Your task to perform on an android device: add a label to a message in the gmail app Image 0: 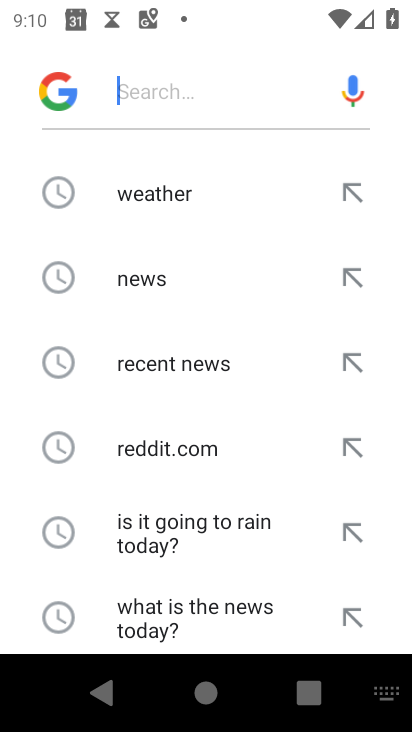
Step 0: press home button
Your task to perform on an android device: add a label to a message in the gmail app Image 1: 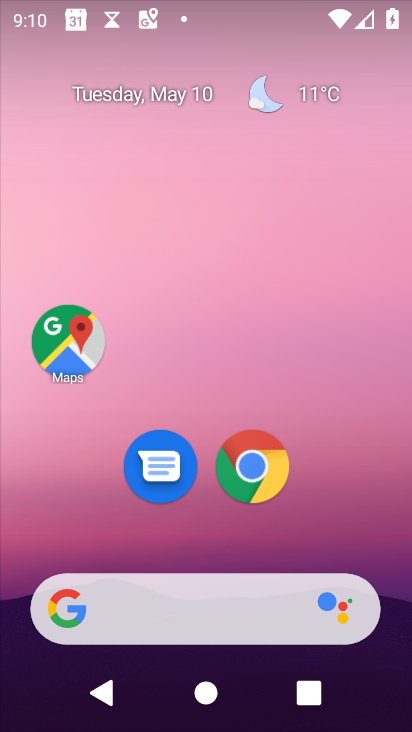
Step 1: drag from (317, 515) to (326, 46)
Your task to perform on an android device: add a label to a message in the gmail app Image 2: 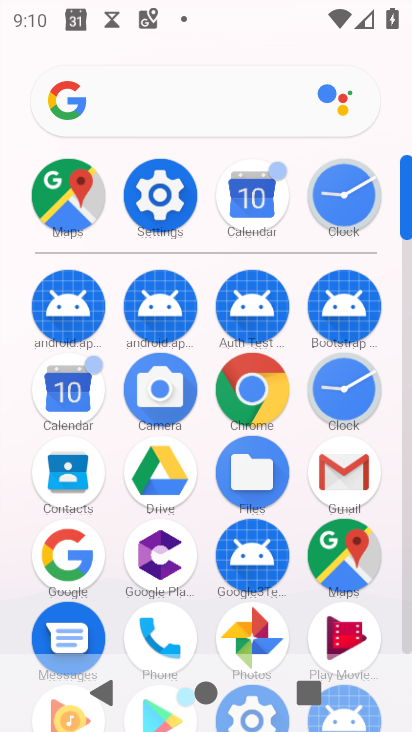
Step 2: click (361, 471)
Your task to perform on an android device: add a label to a message in the gmail app Image 3: 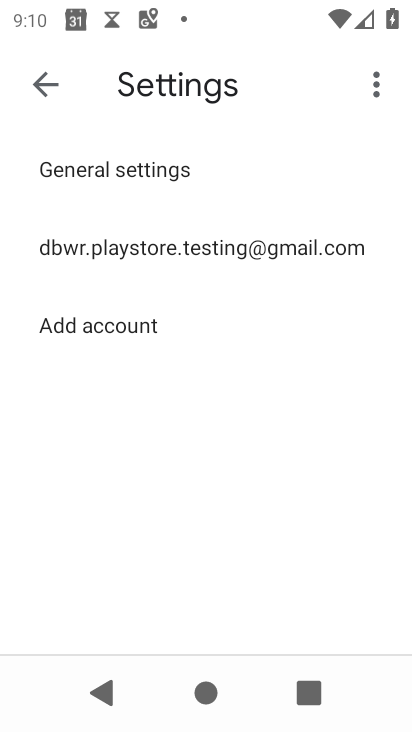
Step 3: click (51, 102)
Your task to perform on an android device: add a label to a message in the gmail app Image 4: 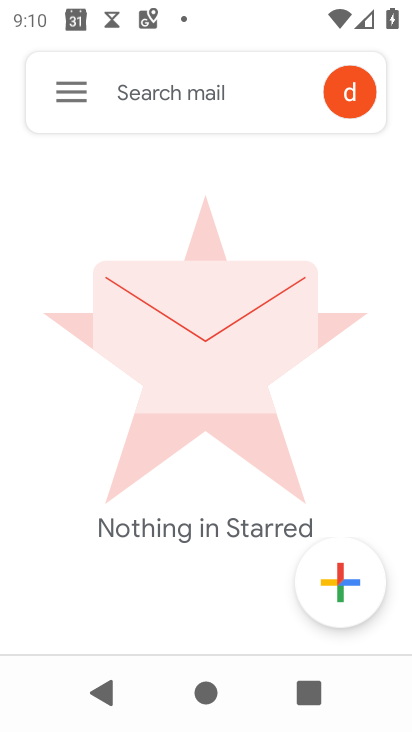
Step 4: click (65, 100)
Your task to perform on an android device: add a label to a message in the gmail app Image 5: 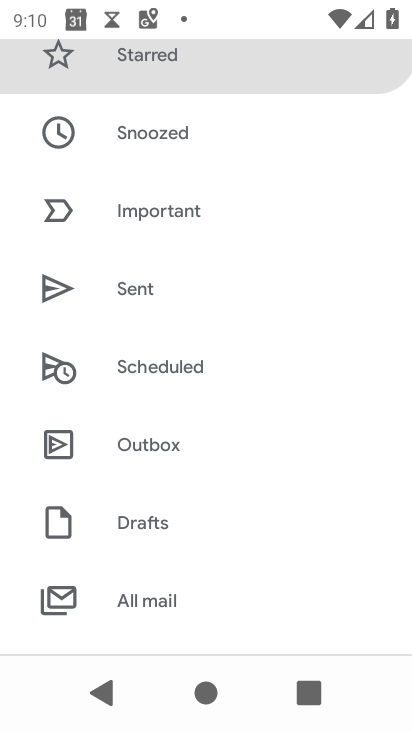
Step 5: drag from (128, 244) to (167, 143)
Your task to perform on an android device: add a label to a message in the gmail app Image 6: 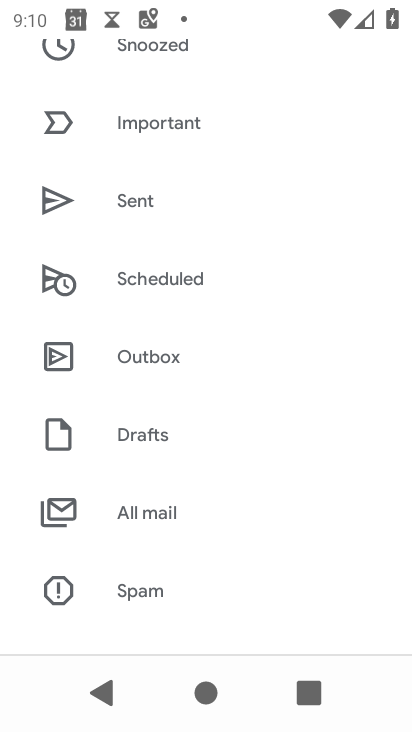
Step 6: click (193, 510)
Your task to perform on an android device: add a label to a message in the gmail app Image 7: 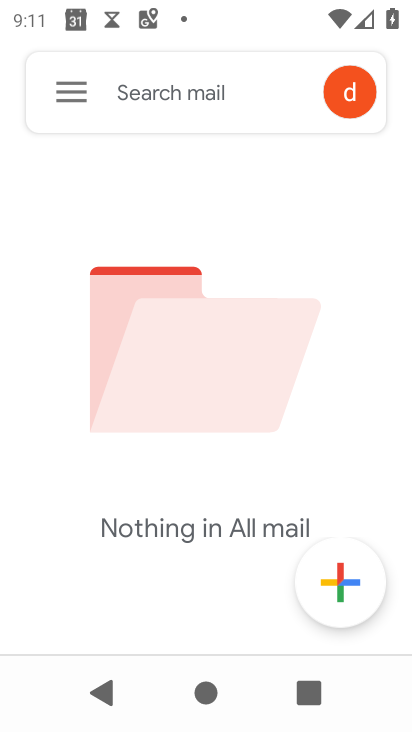
Step 7: task complete